Your task to perform on an android device: Open Yahoo.com Image 0: 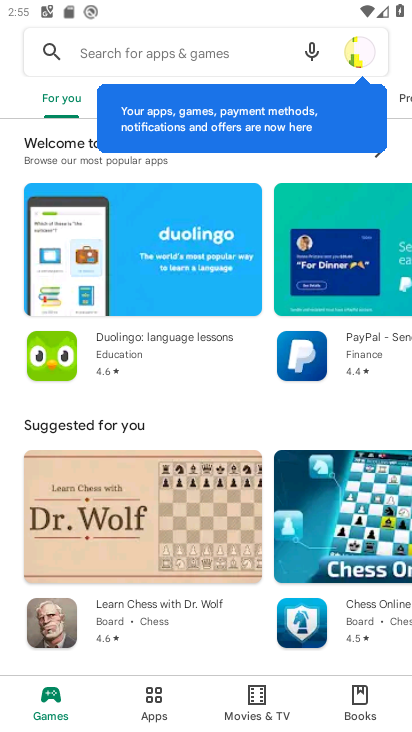
Step 0: press home button
Your task to perform on an android device: Open Yahoo.com Image 1: 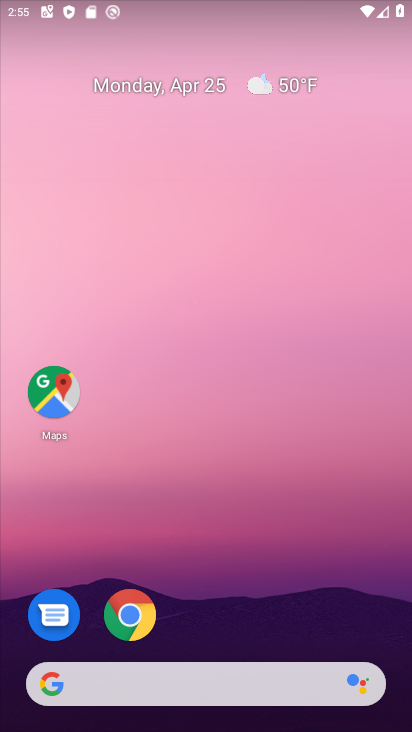
Step 1: click (131, 614)
Your task to perform on an android device: Open Yahoo.com Image 2: 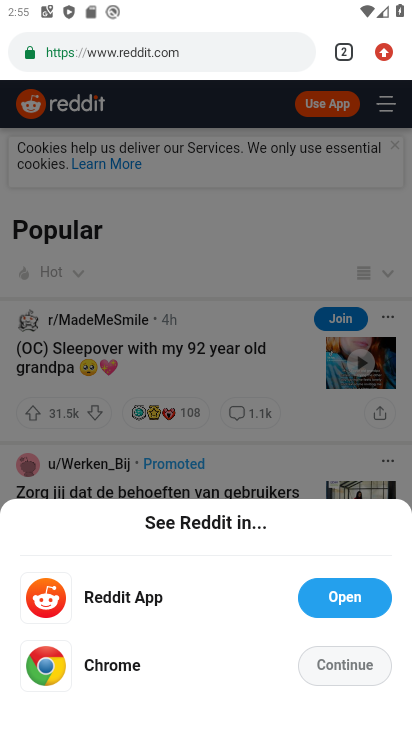
Step 2: click (255, 277)
Your task to perform on an android device: Open Yahoo.com Image 3: 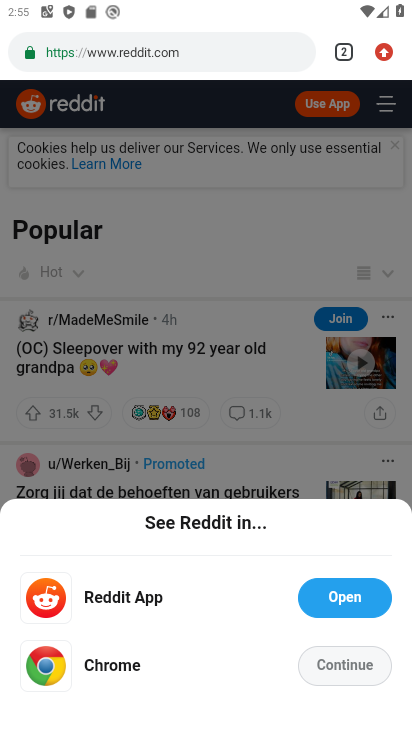
Step 3: click (383, 56)
Your task to perform on an android device: Open Yahoo.com Image 4: 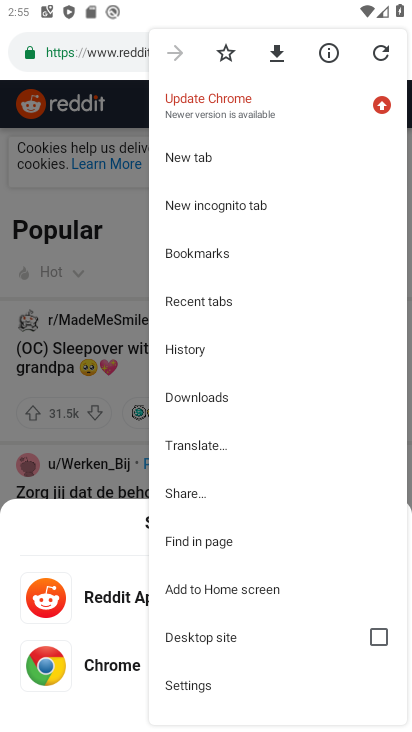
Step 4: click (198, 152)
Your task to perform on an android device: Open Yahoo.com Image 5: 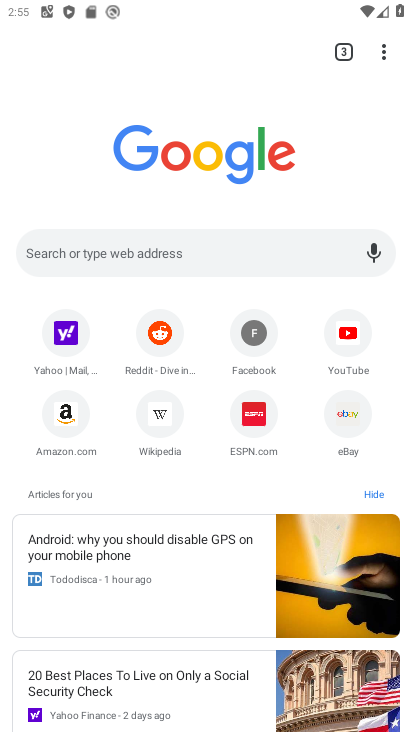
Step 5: click (60, 341)
Your task to perform on an android device: Open Yahoo.com Image 6: 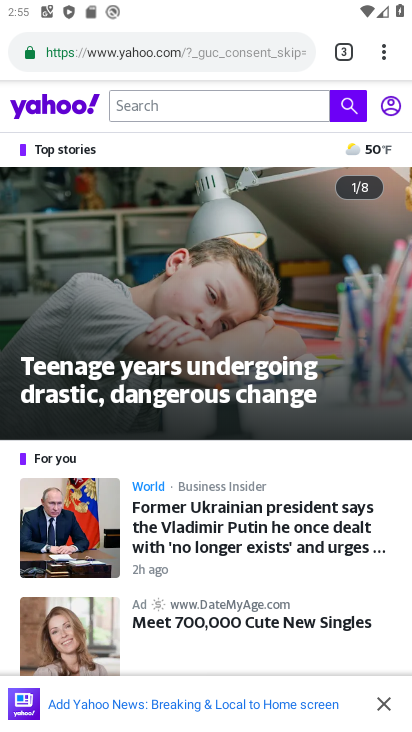
Step 6: task complete